Your task to perform on an android device: Open calendar and show me the first week of next month Image 0: 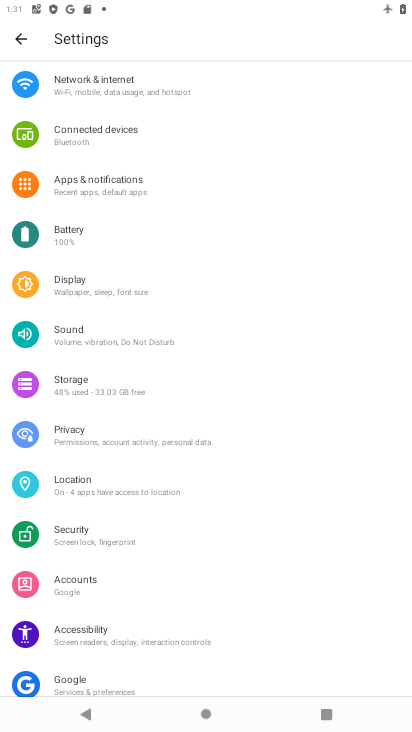
Step 0: press home button
Your task to perform on an android device: Open calendar and show me the first week of next month Image 1: 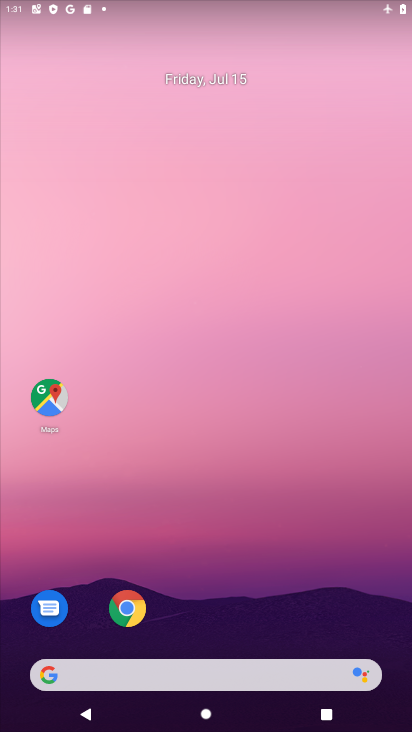
Step 1: drag from (153, 716) to (122, 20)
Your task to perform on an android device: Open calendar and show me the first week of next month Image 2: 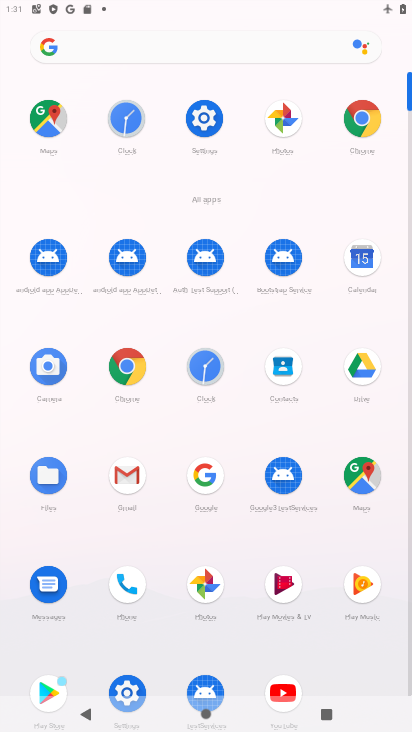
Step 2: click (369, 257)
Your task to perform on an android device: Open calendar and show me the first week of next month Image 3: 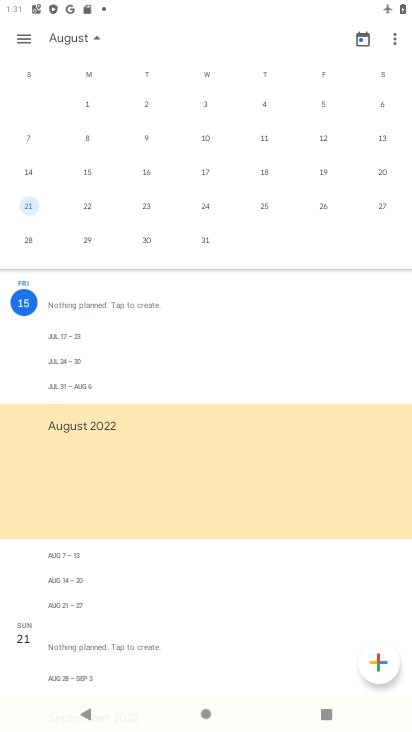
Step 3: click (88, 96)
Your task to perform on an android device: Open calendar and show me the first week of next month Image 4: 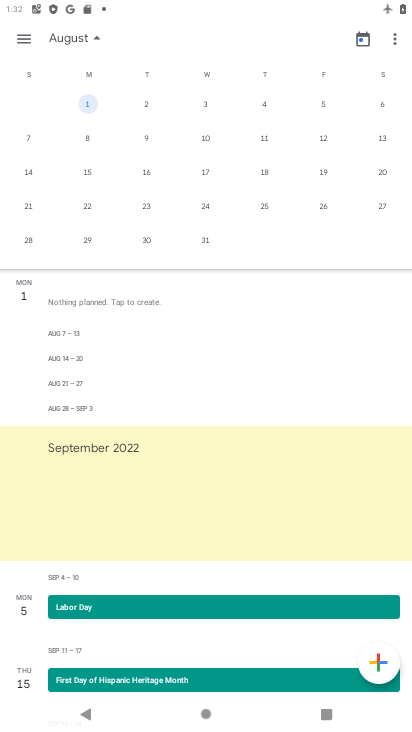
Step 4: task complete